Your task to perform on an android device: open app "Duolingo: language lessons" (install if not already installed) Image 0: 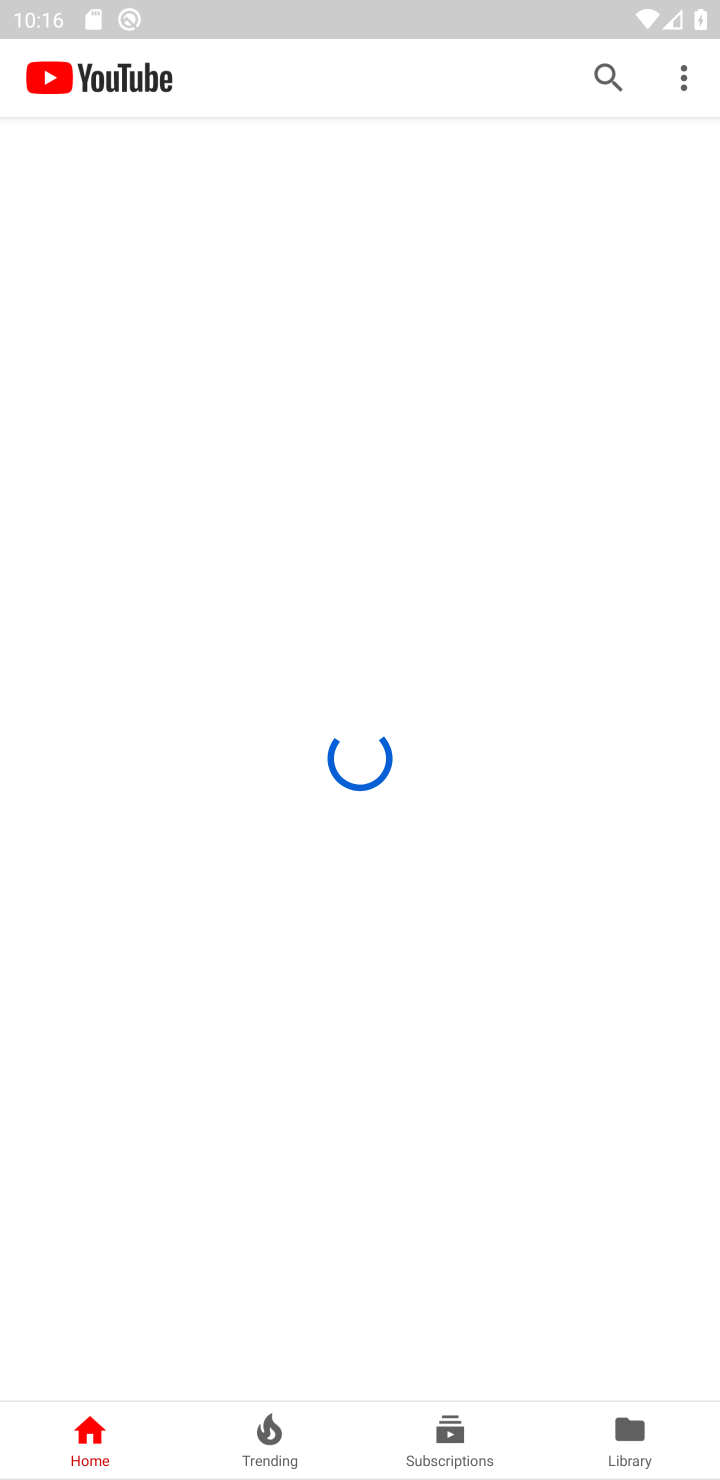
Step 0: press home button
Your task to perform on an android device: open app "Duolingo: language lessons" (install if not already installed) Image 1: 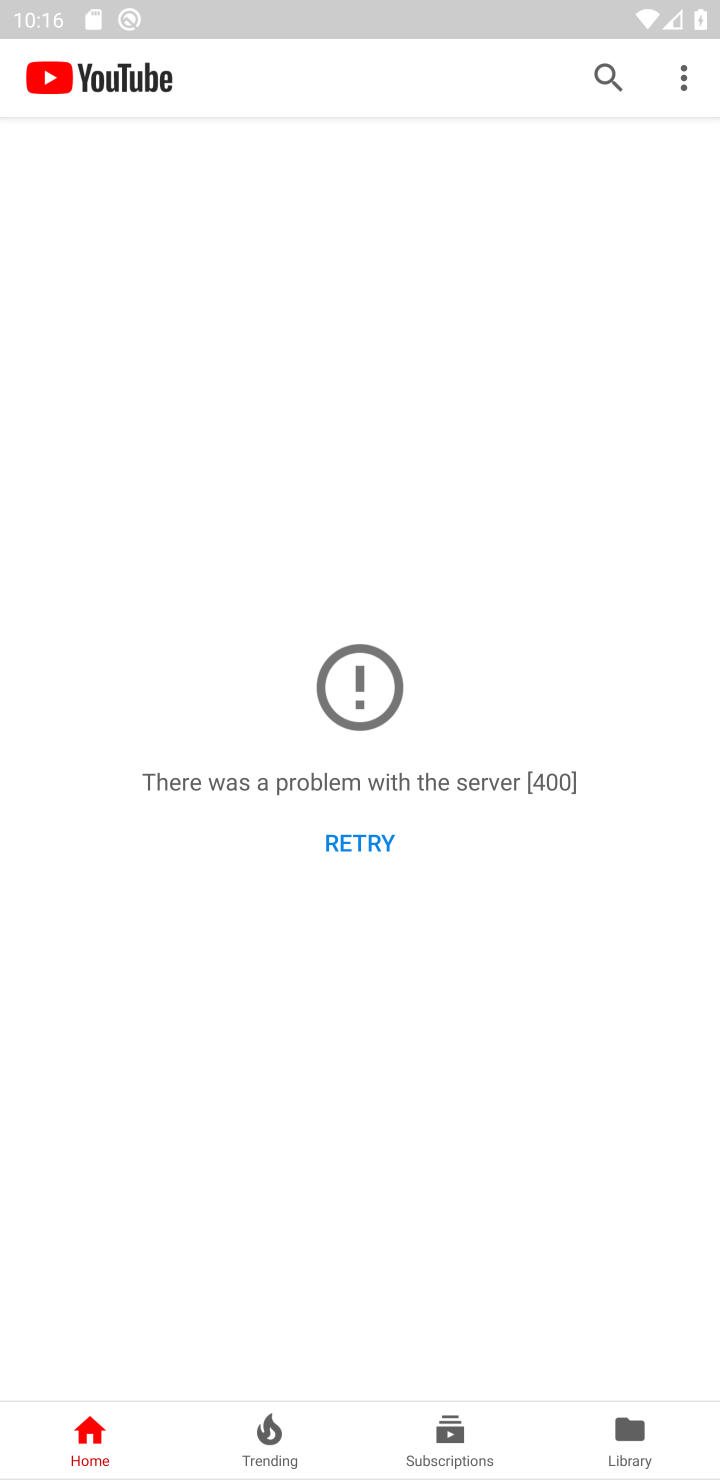
Step 1: press home button
Your task to perform on an android device: open app "Duolingo: language lessons" (install if not already installed) Image 2: 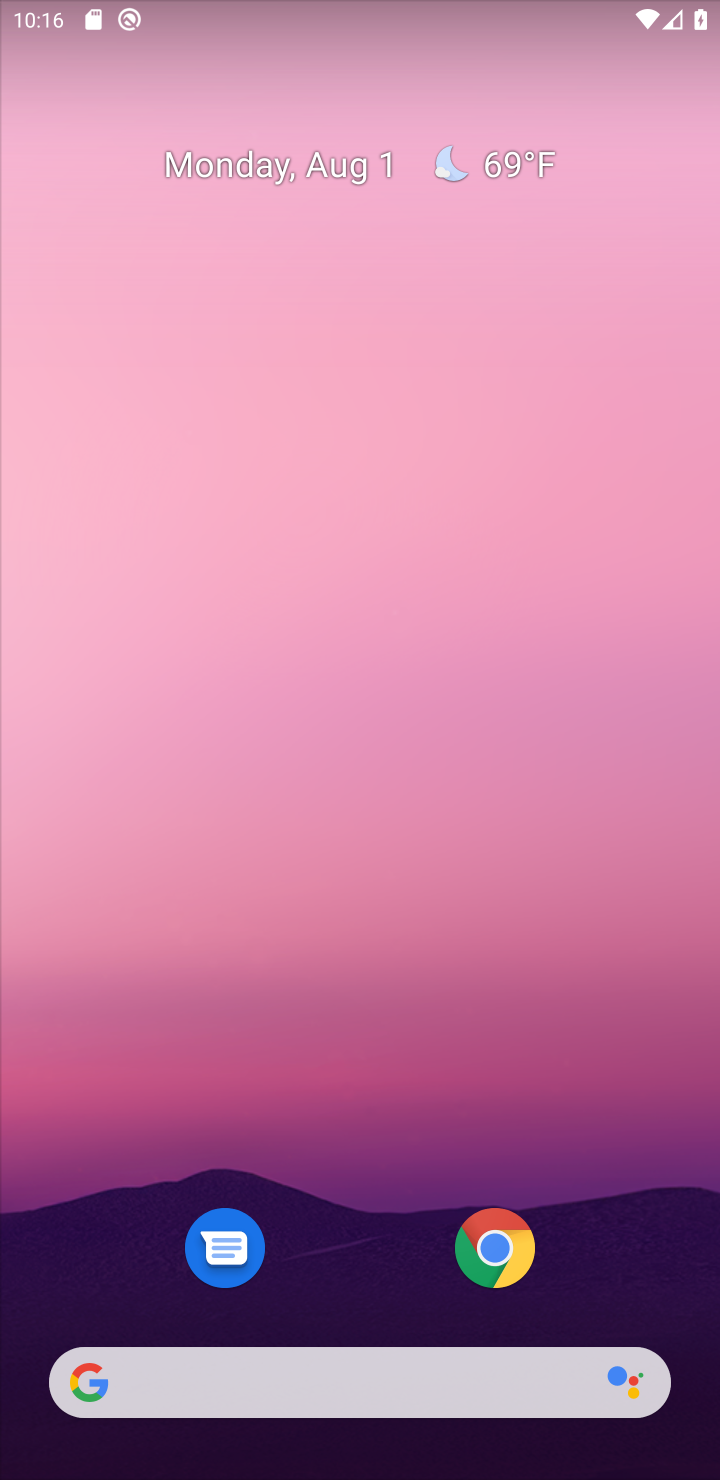
Step 2: drag from (517, 444) to (466, 4)
Your task to perform on an android device: open app "Duolingo: language lessons" (install if not already installed) Image 3: 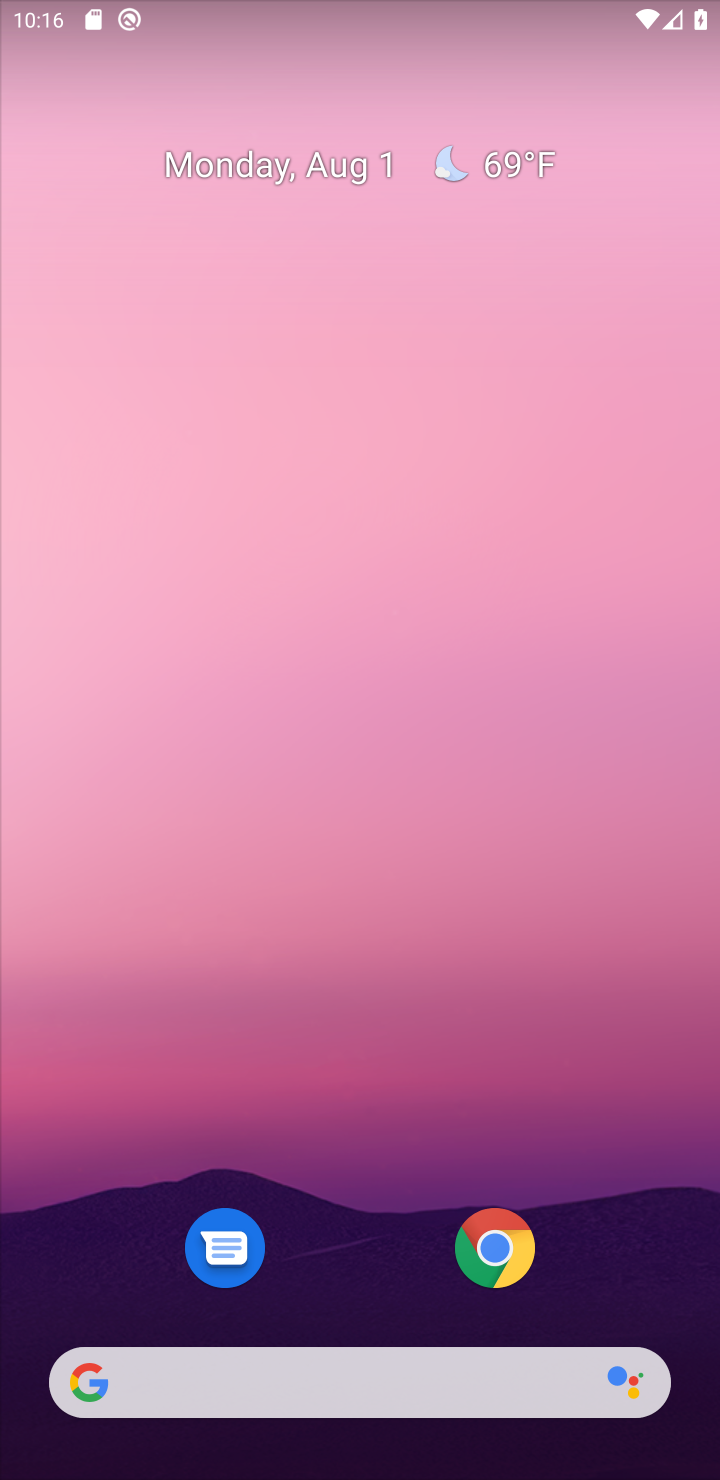
Step 3: drag from (523, 805) to (500, 13)
Your task to perform on an android device: open app "Duolingo: language lessons" (install if not already installed) Image 4: 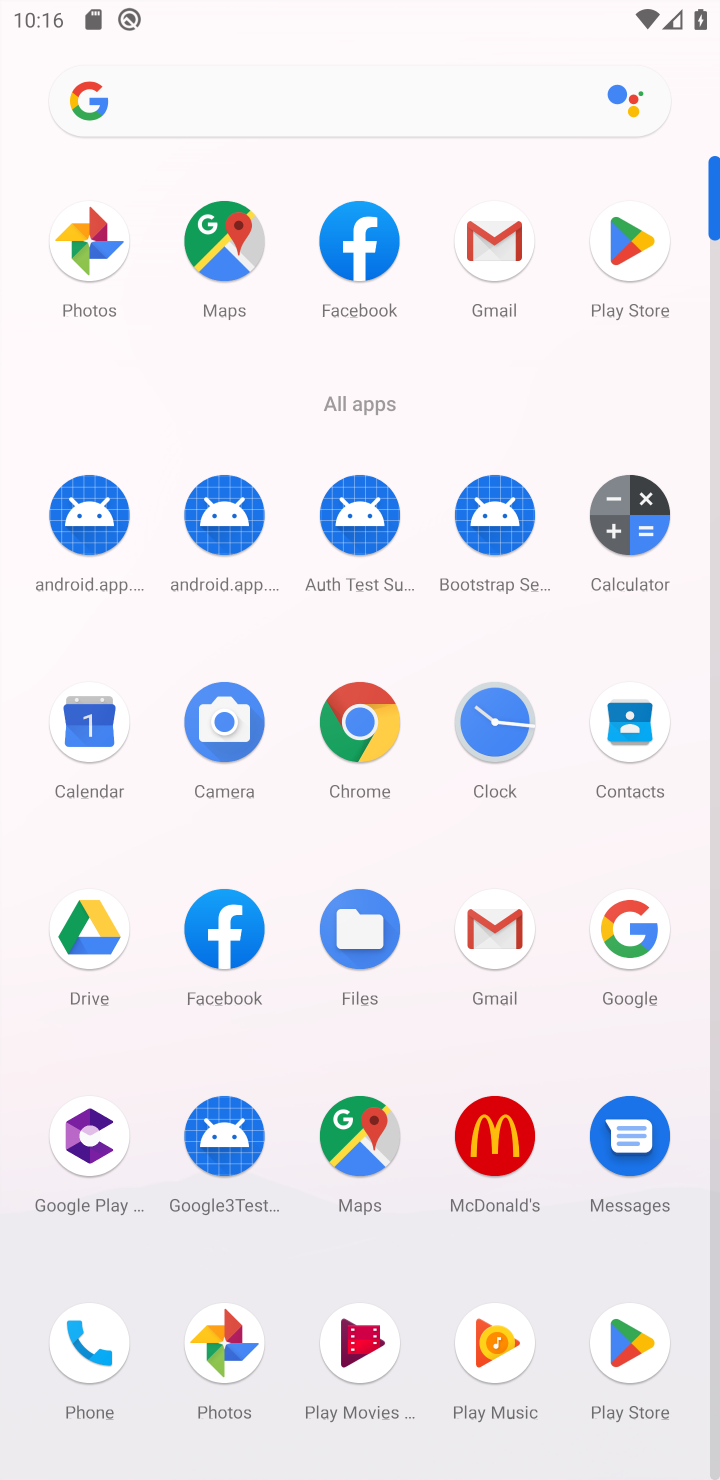
Step 4: click (625, 229)
Your task to perform on an android device: open app "Duolingo: language lessons" (install if not already installed) Image 5: 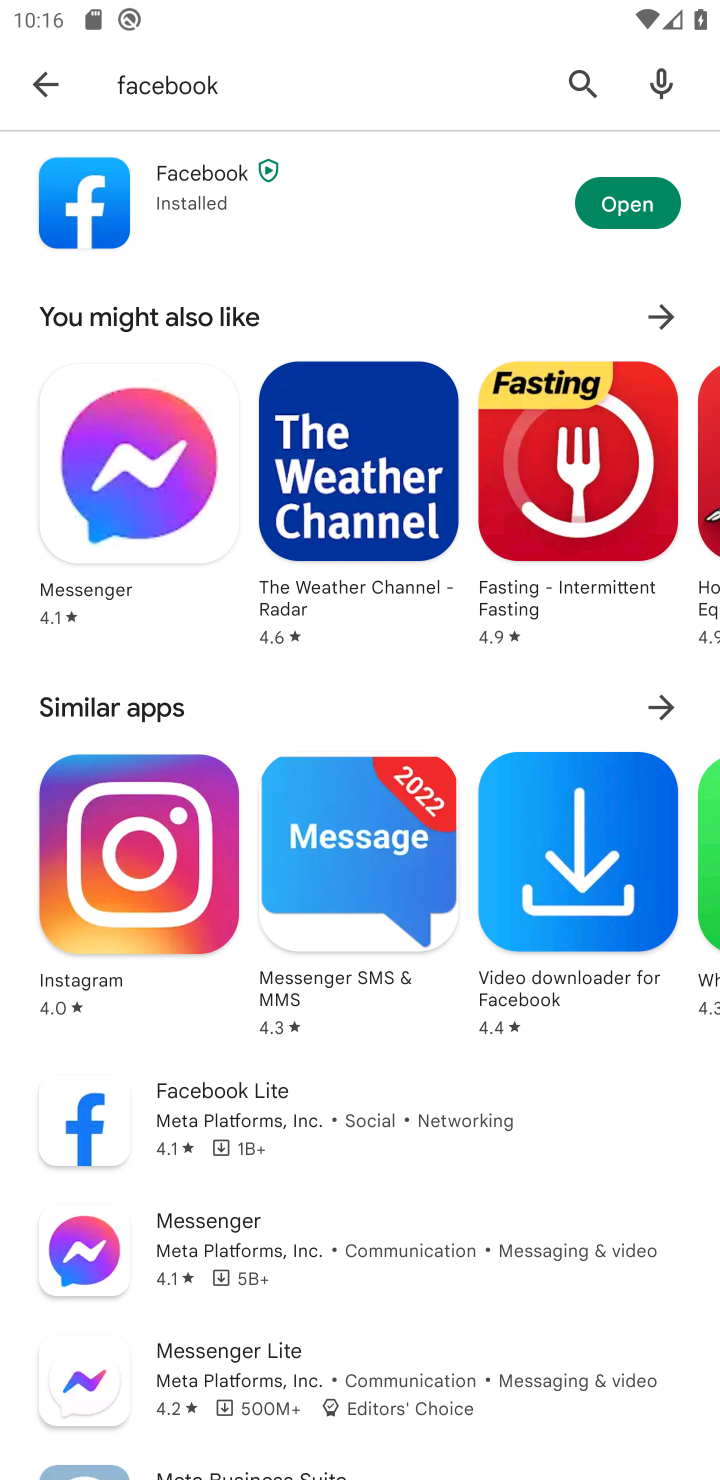
Step 5: click (382, 88)
Your task to perform on an android device: open app "Duolingo: language lessons" (install if not already installed) Image 6: 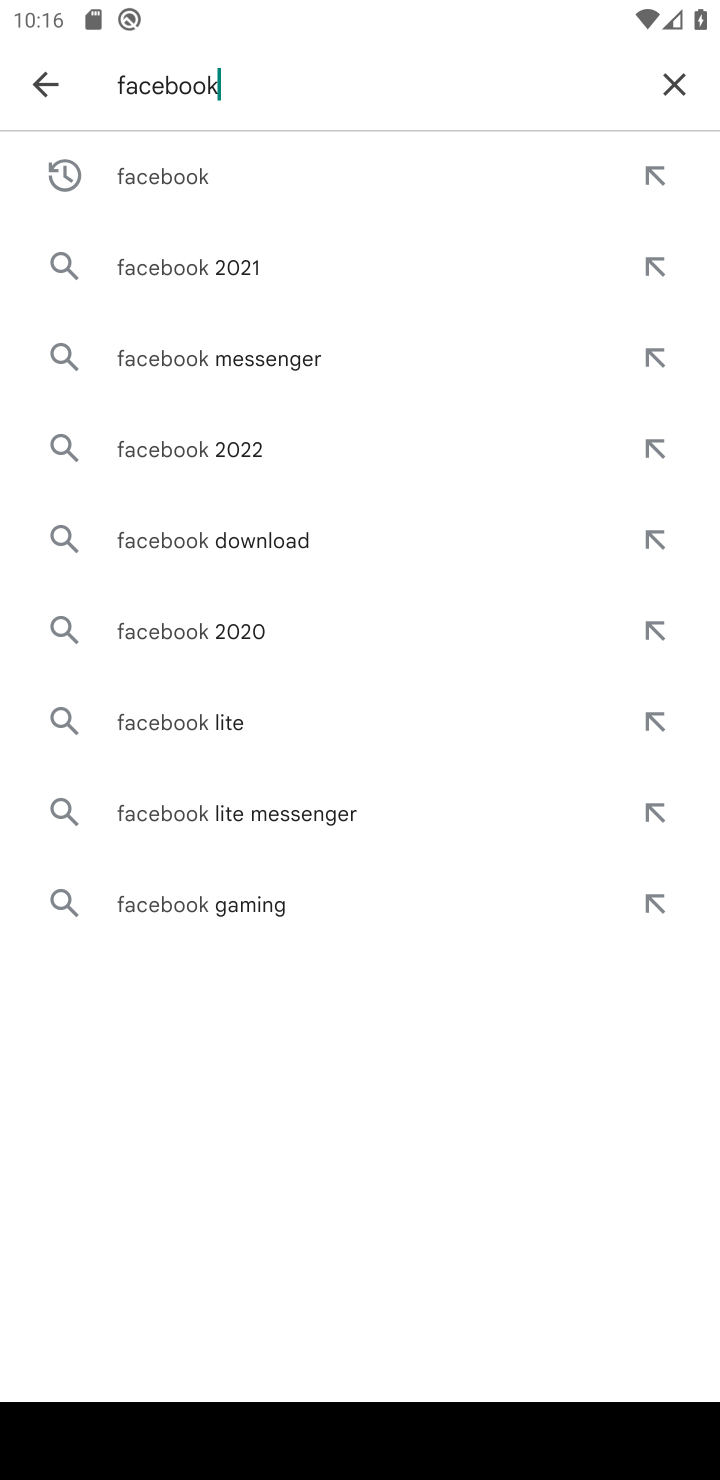
Step 6: click (665, 101)
Your task to perform on an android device: open app "Duolingo: language lessons" (install if not already installed) Image 7: 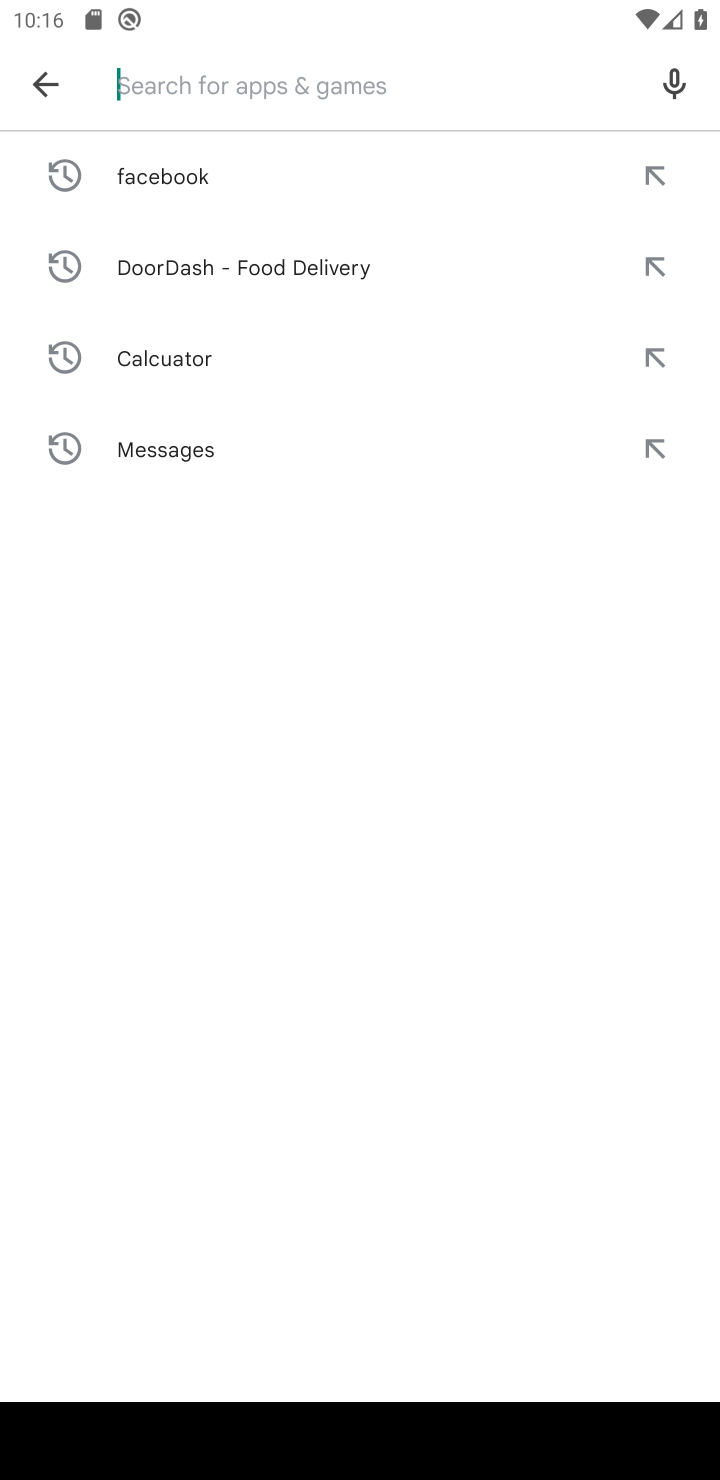
Step 7: type "Duolingo: language lessons"
Your task to perform on an android device: open app "Duolingo: language lessons" (install if not already installed) Image 8: 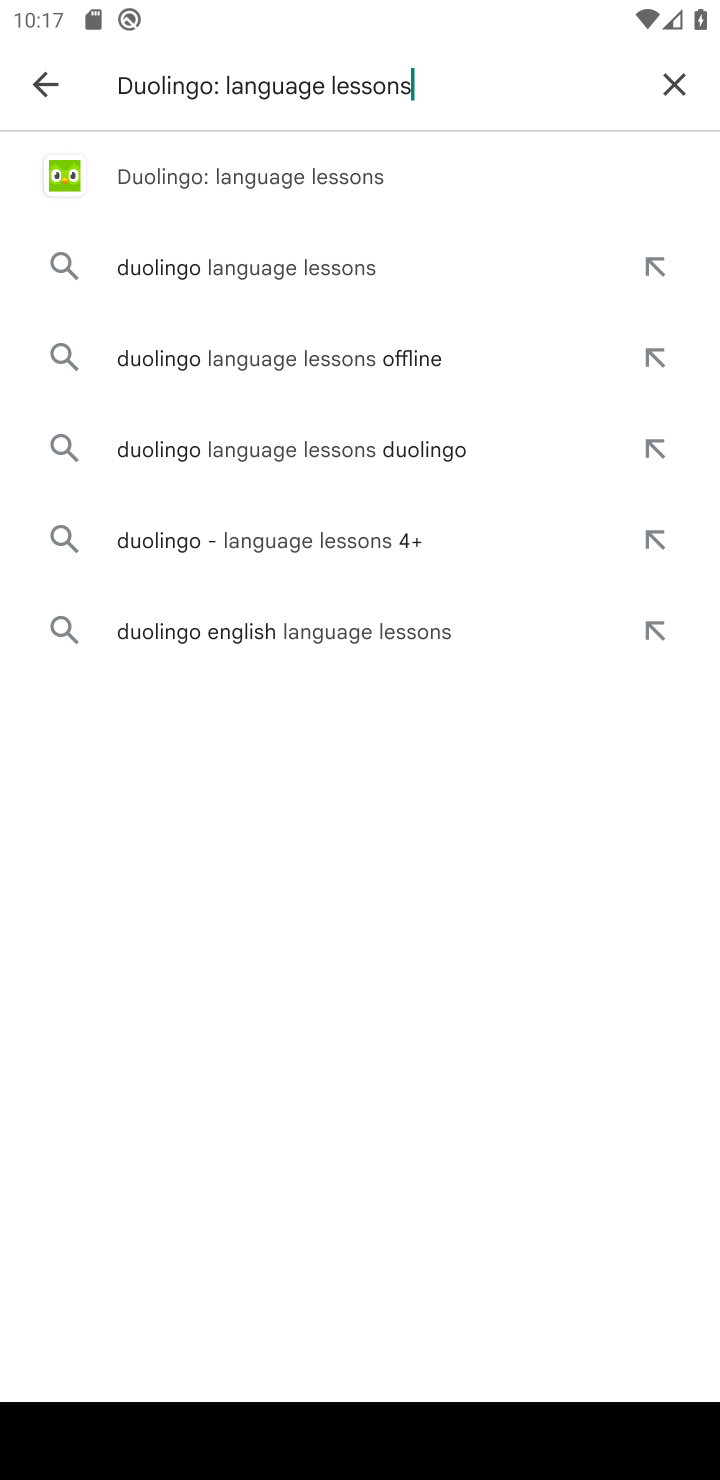
Step 8: press enter
Your task to perform on an android device: open app "Duolingo: language lessons" (install if not already installed) Image 9: 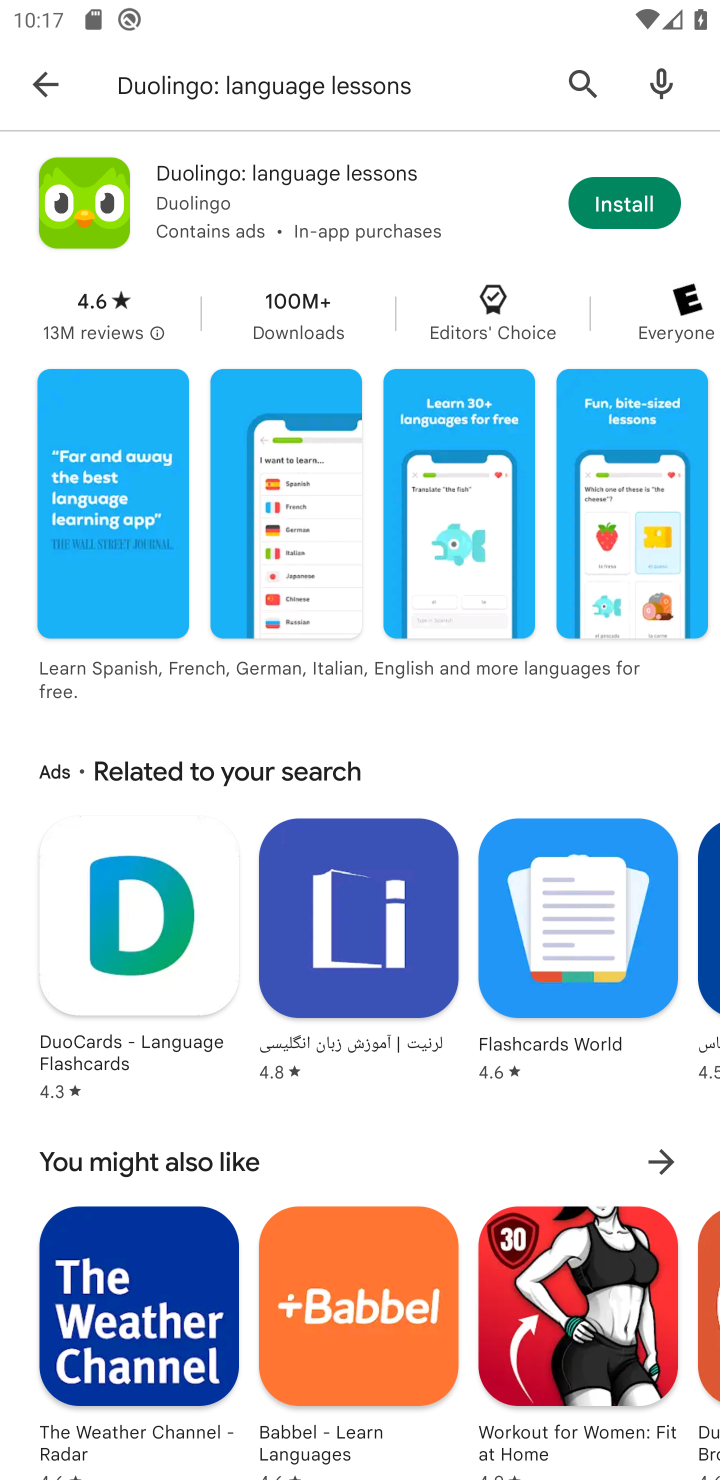
Step 9: click (607, 211)
Your task to perform on an android device: open app "Duolingo: language lessons" (install if not already installed) Image 10: 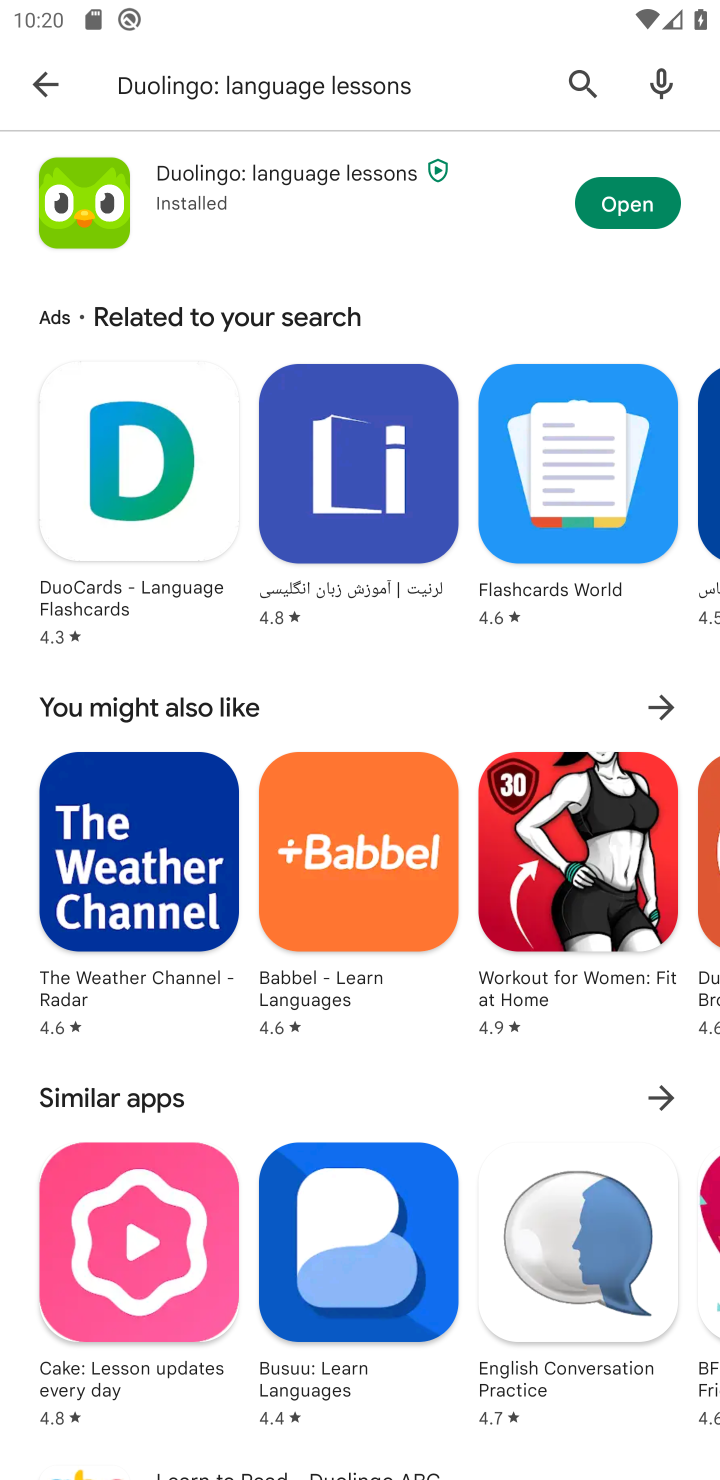
Step 10: click (625, 173)
Your task to perform on an android device: open app "Duolingo: language lessons" (install if not already installed) Image 11: 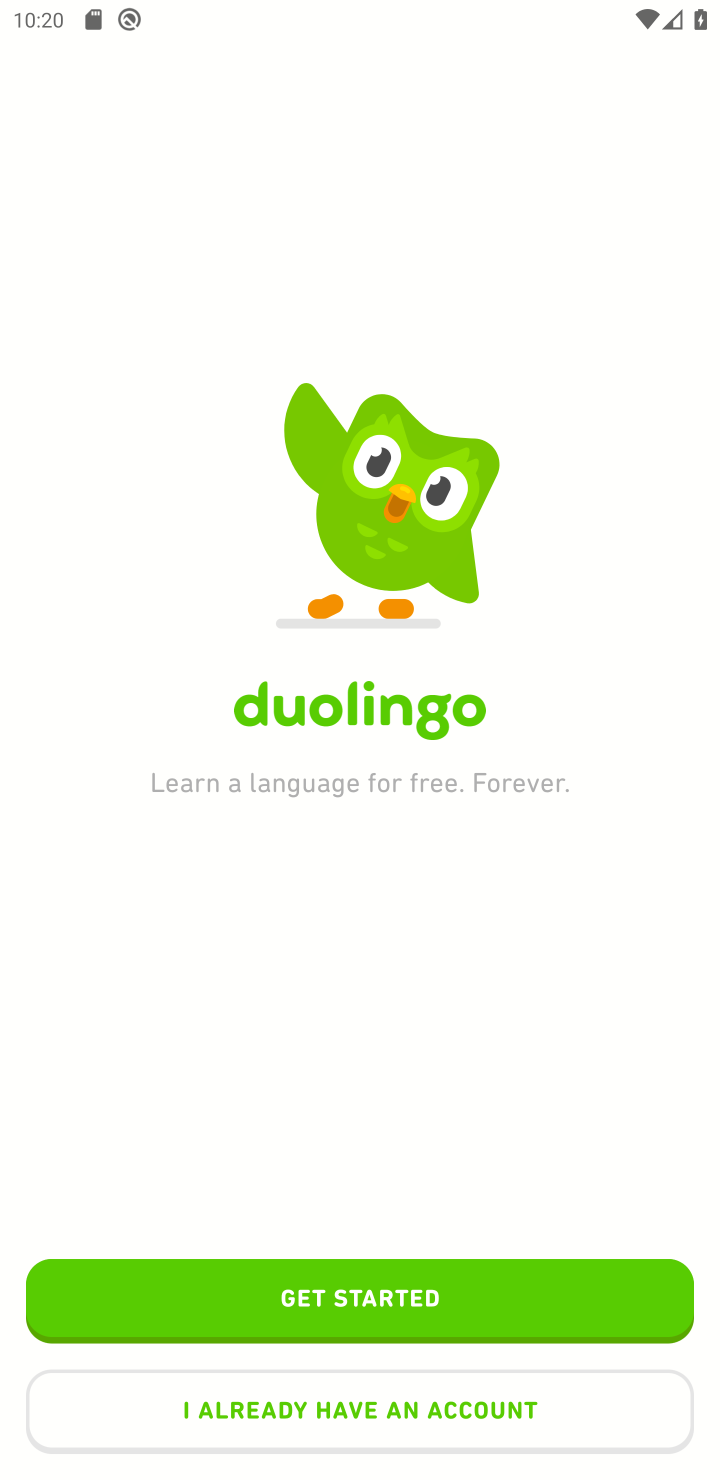
Step 11: task complete